Your task to perform on an android device: Clear the shopping cart on walmart. Add "duracell triple a" to the cart on walmart Image 0: 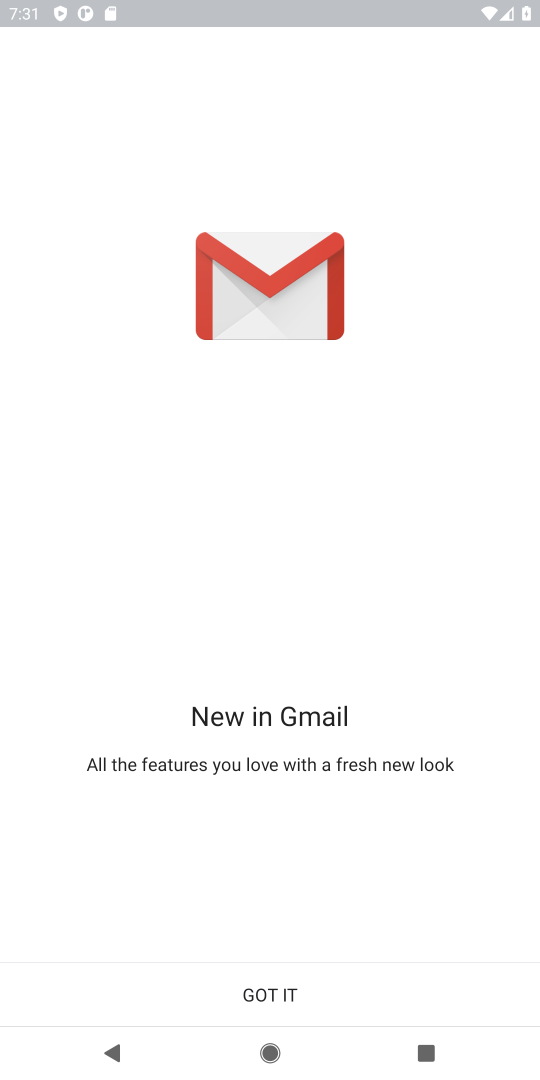
Step 0: press home button
Your task to perform on an android device: Clear the shopping cart on walmart. Add "duracell triple a" to the cart on walmart Image 1: 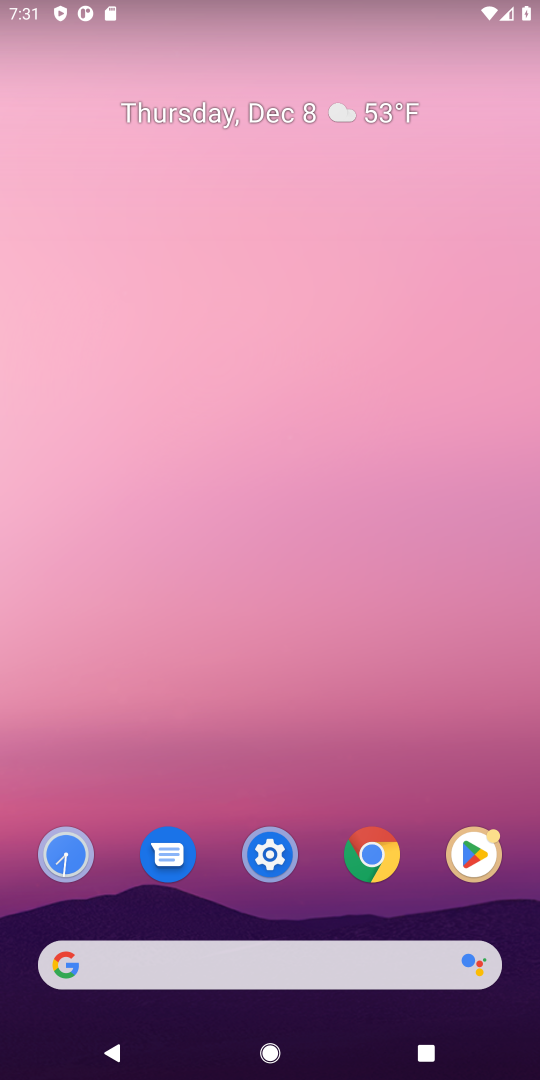
Step 1: click (95, 972)
Your task to perform on an android device: Clear the shopping cart on walmart. Add "duracell triple a" to the cart on walmart Image 2: 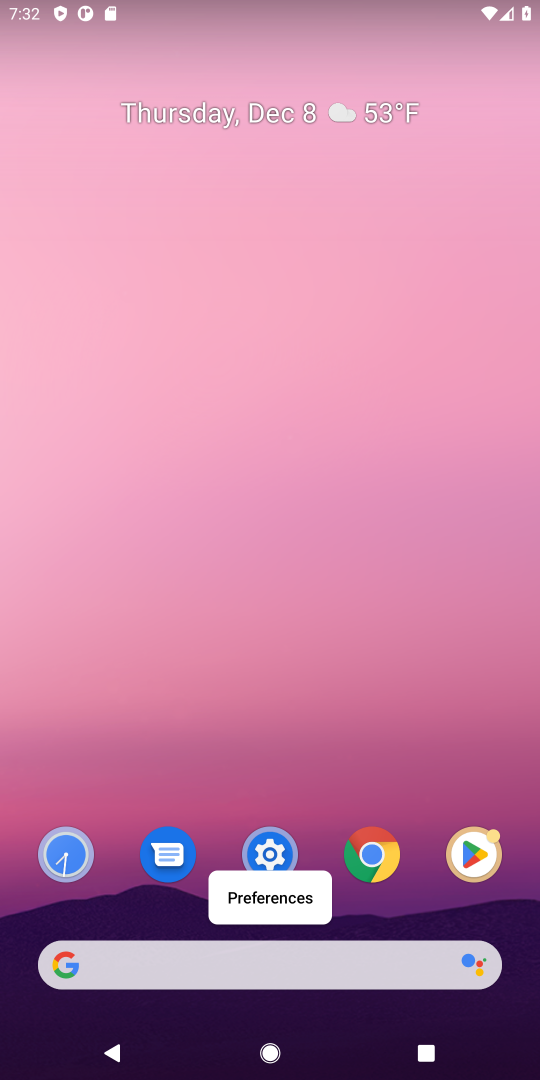
Step 2: click (89, 965)
Your task to perform on an android device: Clear the shopping cart on walmart. Add "duracell triple a" to the cart on walmart Image 3: 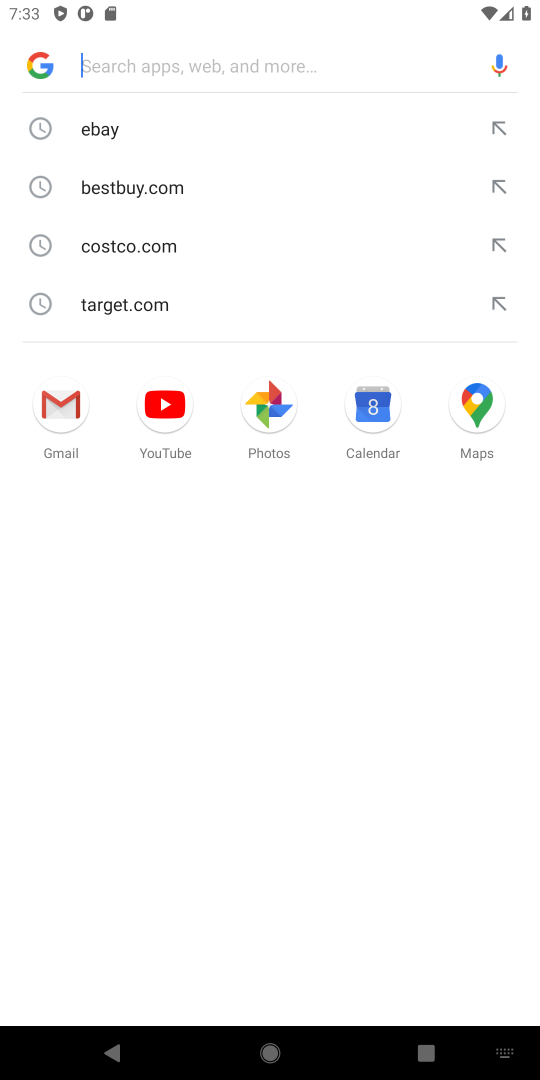
Step 3: type "walmart"
Your task to perform on an android device: Clear the shopping cart on walmart. Add "duracell triple a" to the cart on walmart Image 4: 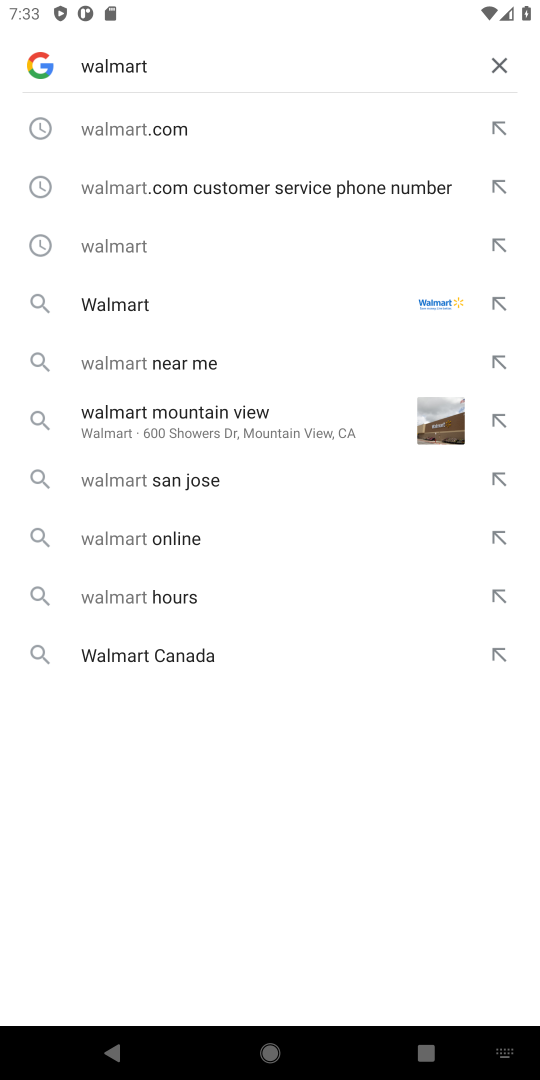
Step 4: press enter
Your task to perform on an android device: Clear the shopping cart on walmart. Add "duracell triple a" to the cart on walmart Image 5: 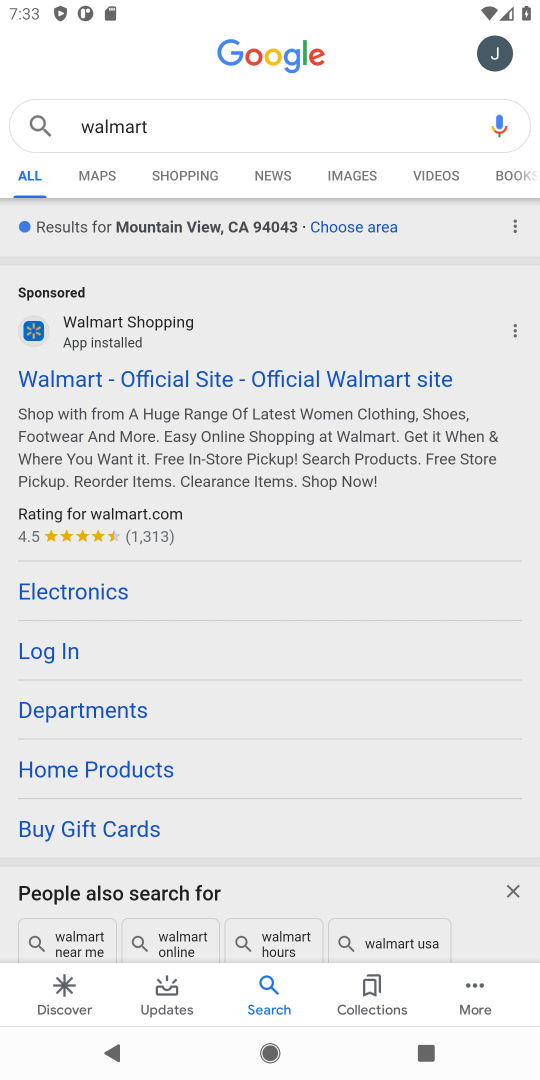
Step 5: click (169, 377)
Your task to perform on an android device: Clear the shopping cart on walmart. Add "duracell triple a" to the cart on walmart Image 6: 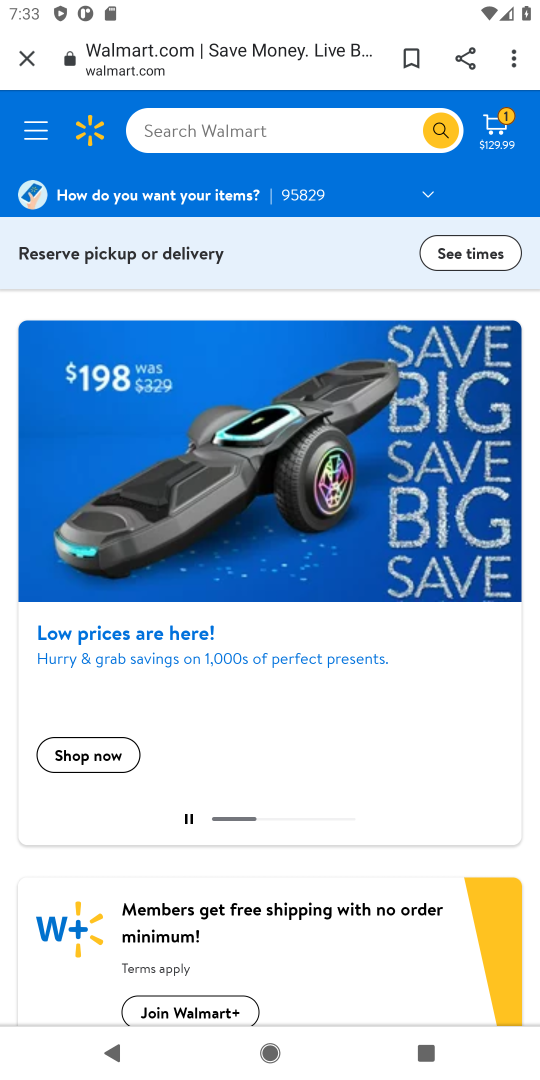
Step 6: click (500, 113)
Your task to perform on an android device: Clear the shopping cart on walmart. Add "duracell triple a" to the cart on walmart Image 7: 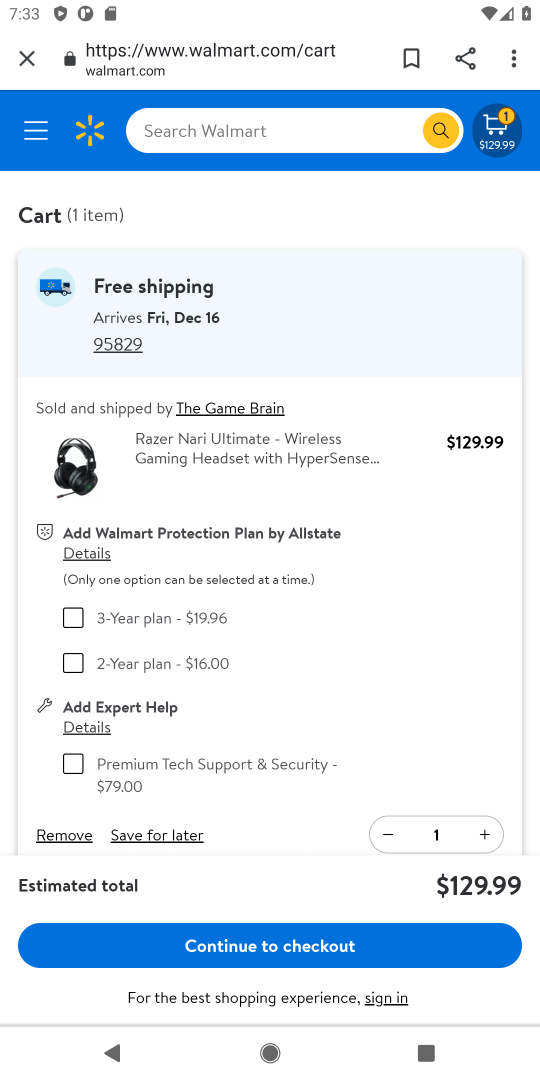
Step 7: click (44, 831)
Your task to perform on an android device: Clear the shopping cart on walmart. Add "duracell triple a" to the cart on walmart Image 8: 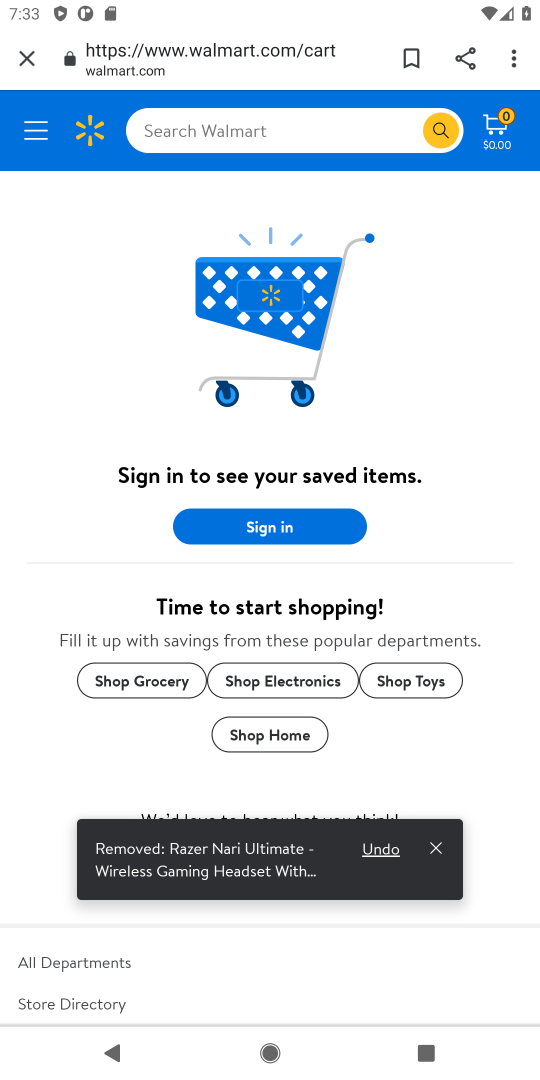
Step 8: click (268, 122)
Your task to perform on an android device: Clear the shopping cart on walmart. Add "duracell triple a" to the cart on walmart Image 9: 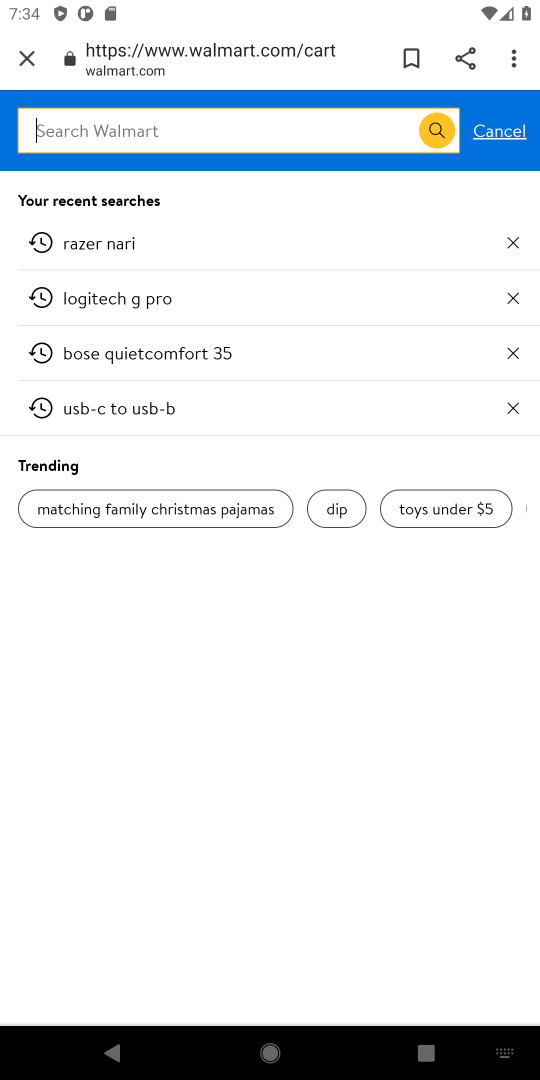
Step 9: type "duracell triple a"
Your task to perform on an android device: Clear the shopping cart on walmart. Add "duracell triple a" to the cart on walmart Image 10: 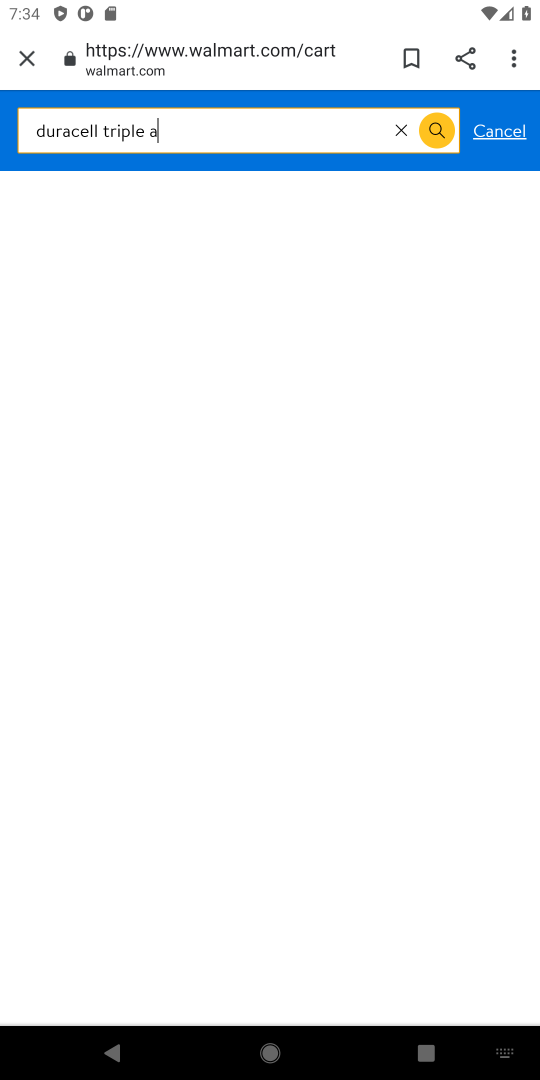
Step 10: press enter
Your task to perform on an android device: Clear the shopping cart on walmart. Add "duracell triple a" to the cart on walmart Image 11: 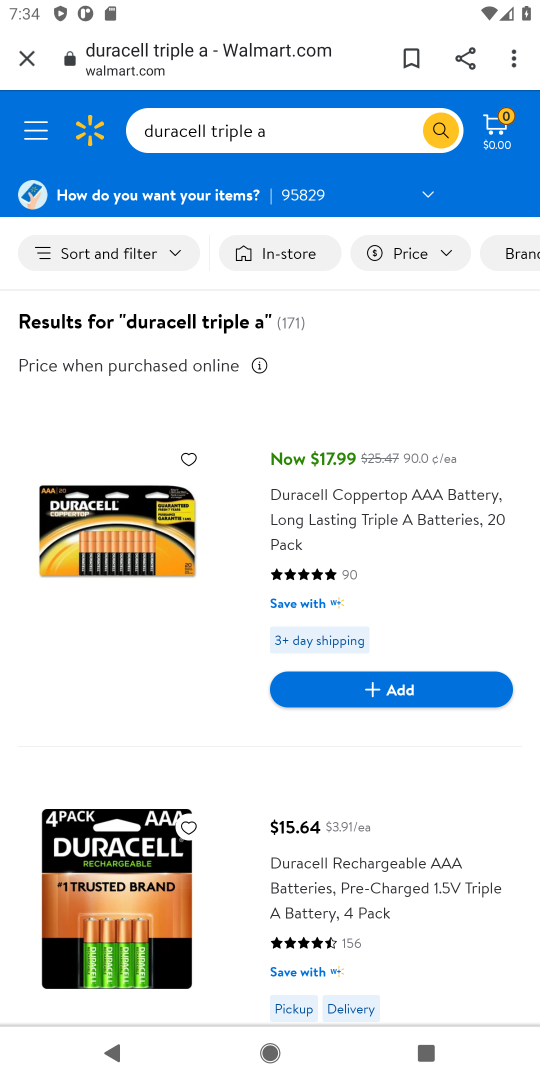
Step 11: click (384, 694)
Your task to perform on an android device: Clear the shopping cart on walmart. Add "duracell triple a" to the cart on walmart Image 12: 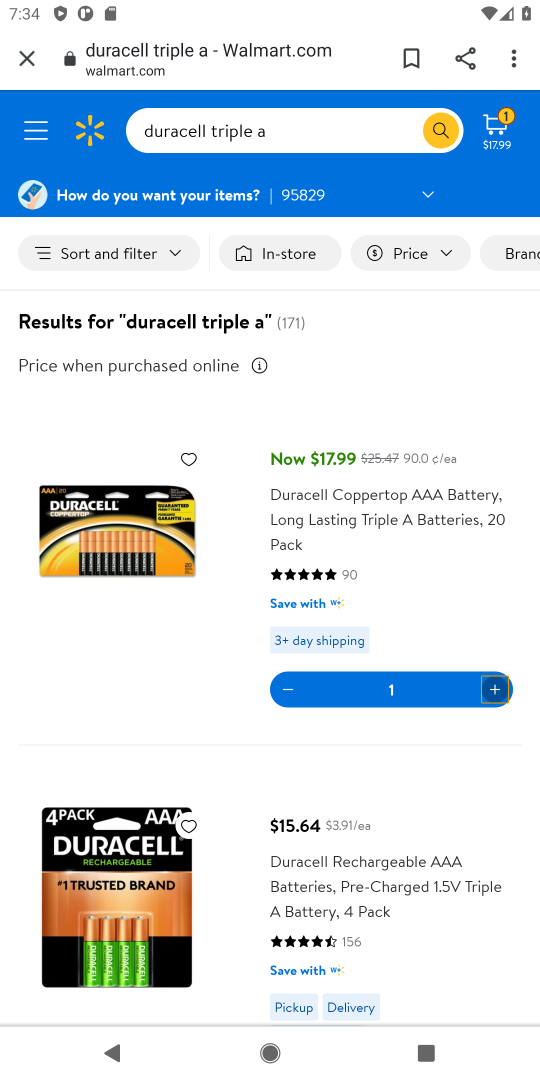
Step 12: task complete